Your task to perform on an android device: toggle data saver in the chrome app Image 0: 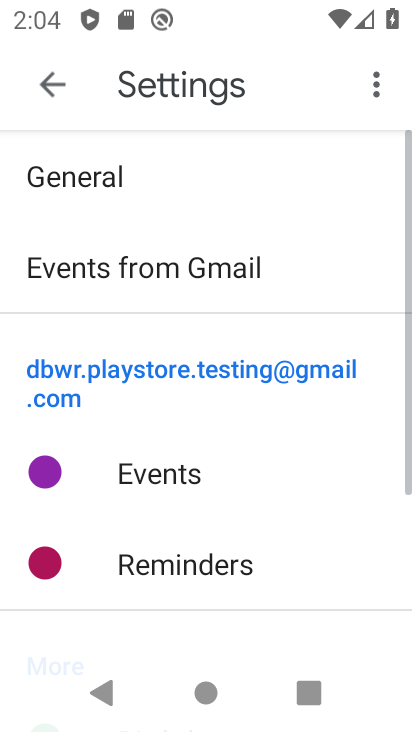
Step 0: drag from (368, 527) to (344, 222)
Your task to perform on an android device: toggle data saver in the chrome app Image 1: 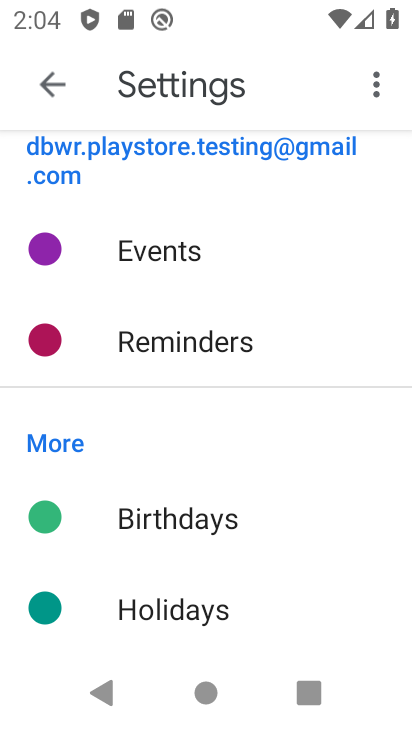
Step 1: press back button
Your task to perform on an android device: toggle data saver in the chrome app Image 2: 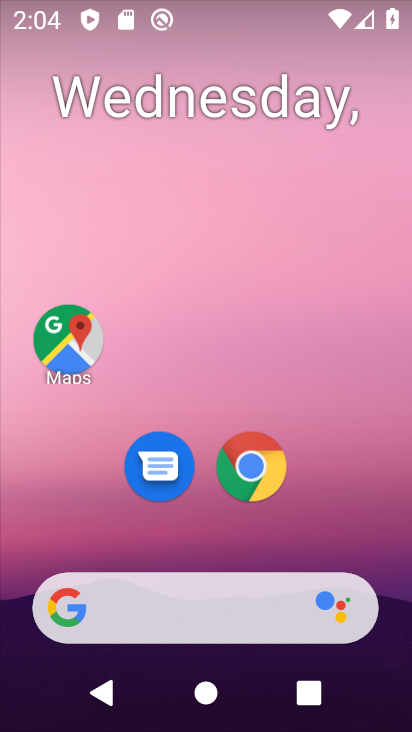
Step 2: drag from (344, 436) to (305, 5)
Your task to perform on an android device: toggle data saver in the chrome app Image 3: 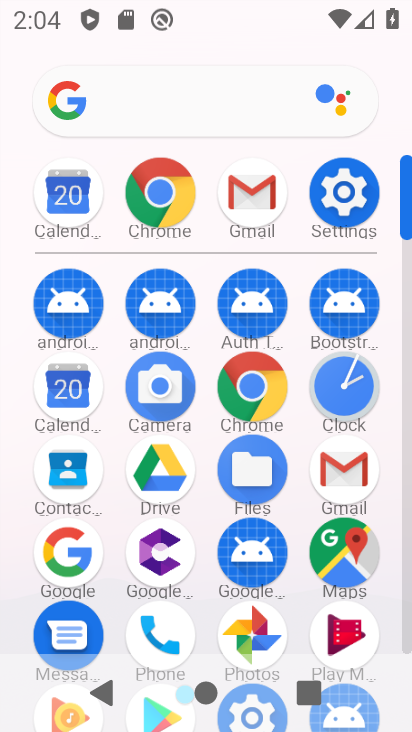
Step 3: drag from (23, 588) to (0, 274)
Your task to perform on an android device: toggle data saver in the chrome app Image 4: 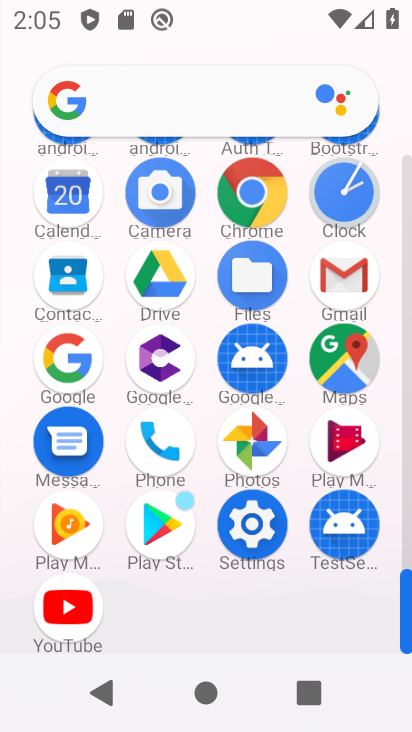
Step 4: click (244, 195)
Your task to perform on an android device: toggle data saver in the chrome app Image 5: 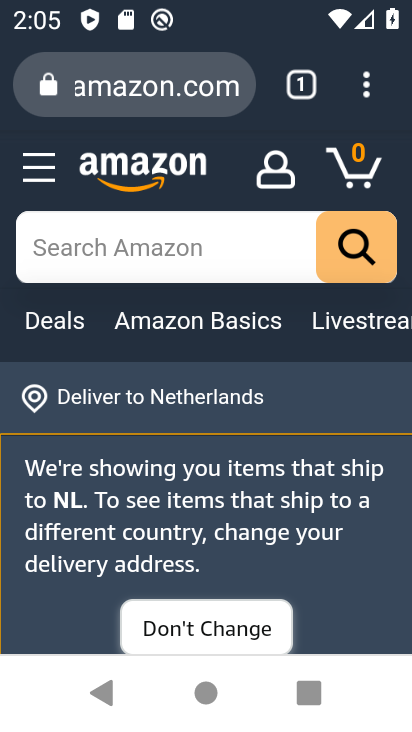
Step 5: drag from (363, 81) to (102, 523)
Your task to perform on an android device: toggle data saver in the chrome app Image 6: 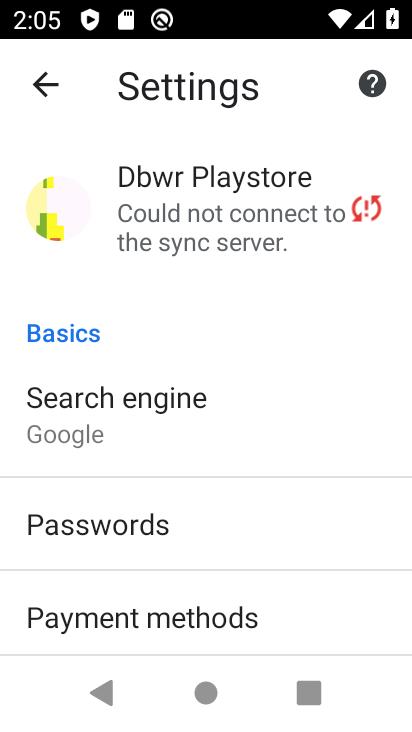
Step 6: drag from (252, 469) to (196, 174)
Your task to perform on an android device: toggle data saver in the chrome app Image 7: 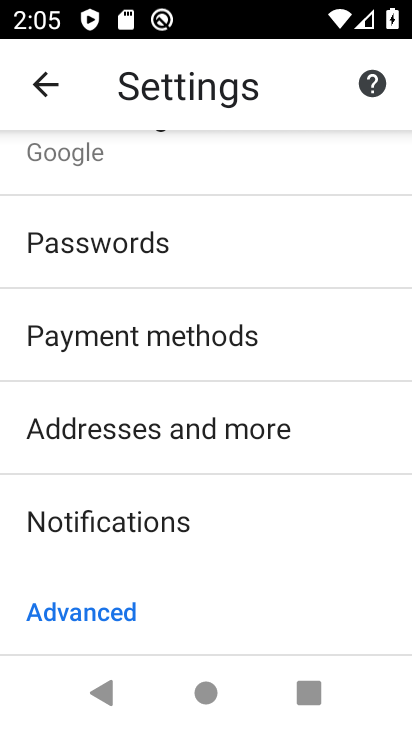
Step 7: drag from (268, 504) to (257, 156)
Your task to perform on an android device: toggle data saver in the chrome app Image 8: 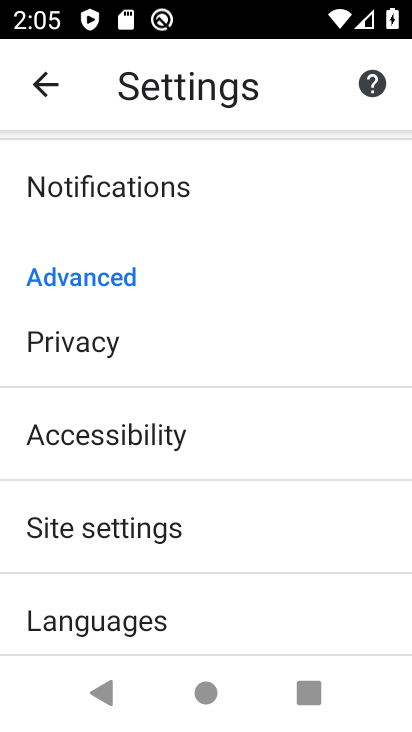
Step 8: drag from (253, 470) to (249, 244)
Your task to perform on an android device: toggle data saver in the chrome app Image 9: 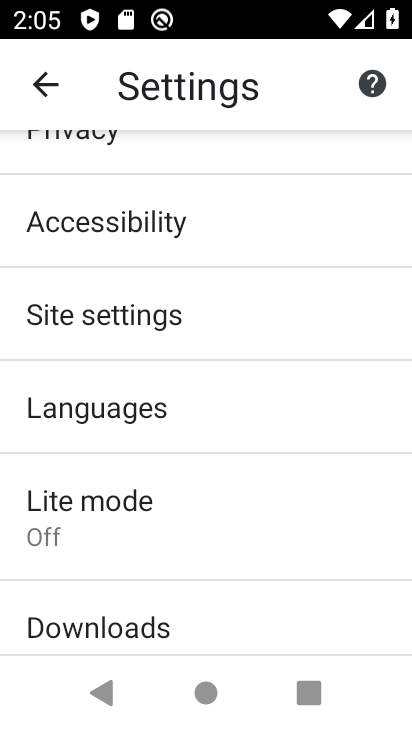
Step 9: click (141, 492)
Your task to perform on an android device: toggle data saver in the chrome app Image 10: 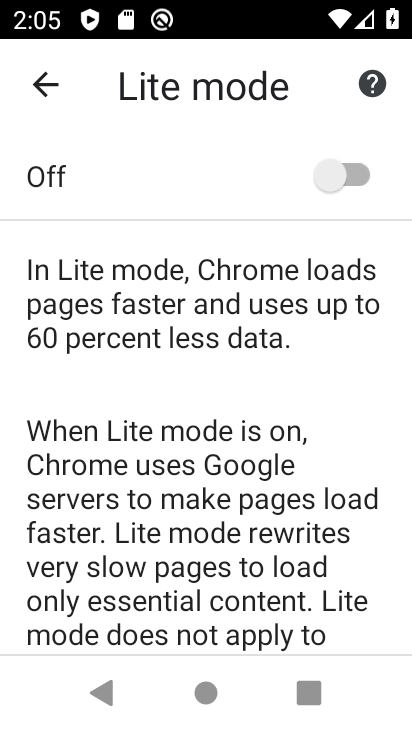
Step 10: click (340, 181)
Your task to perform on an android device: toggle data saver in the chrome app Image 11: 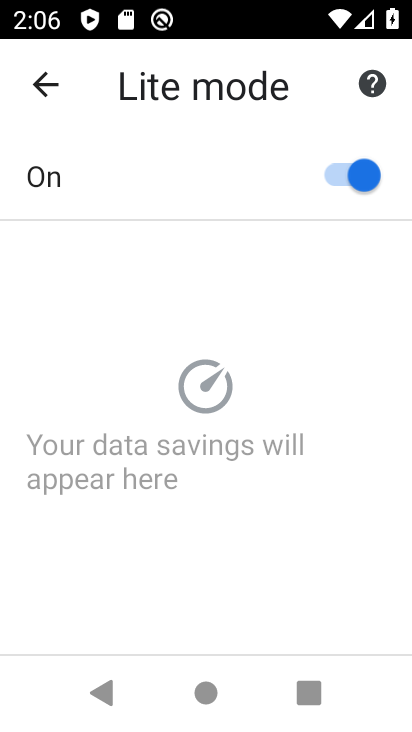
Step 11: task complete